Your task to perform on an android device: turn on wifi Image 0: 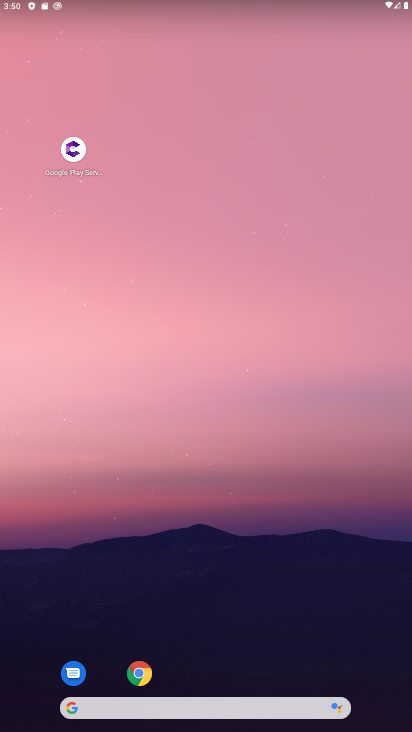
Step 0: drag from (187, 8) to (174, 424)
Your task to perform on an android device: turn on wifi Image 1: 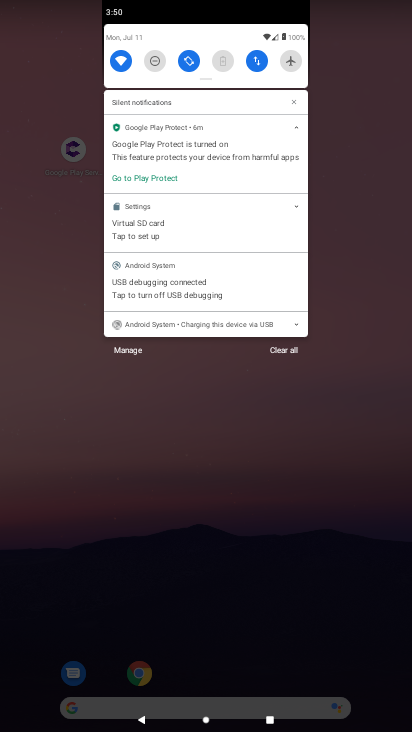
Step 1: task complete